Your task to perform on an android device: change notifications settings Image 0: 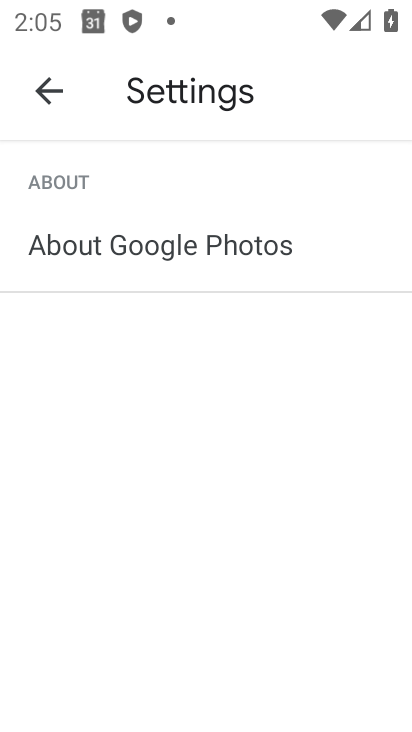
Step 0: press home button
Your task to perform on an android device: change notifications settings Image 1: 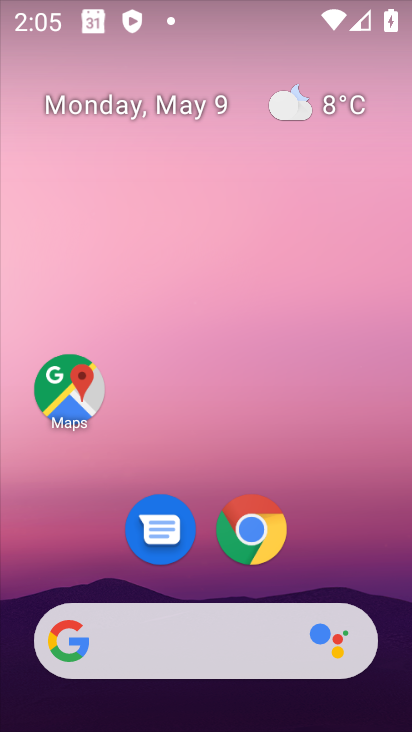
Step 1: drag from (210, 723) to (213, 86)
Your task to perform on an android device: change notifications settings Image 2: 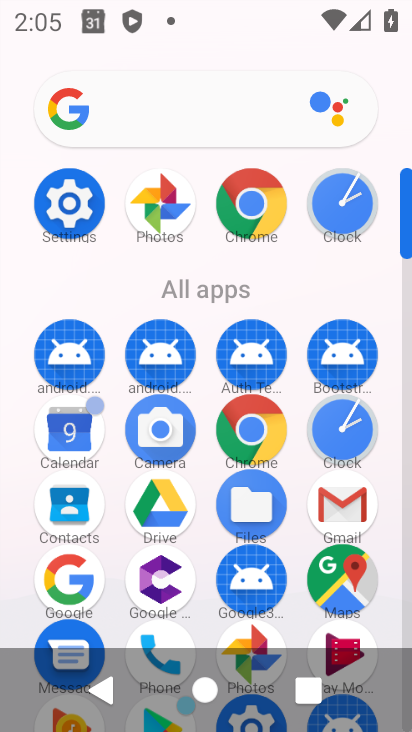
Step 2: click (60, 218)
Your task to perform on an android device: change notifications settings Image 3: 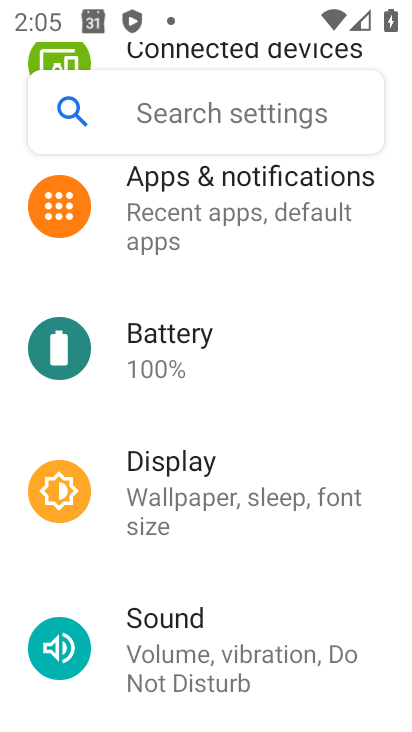
Step 3: click (263, 191)
Your task to perform on an android device: change notifications settings Image 4: 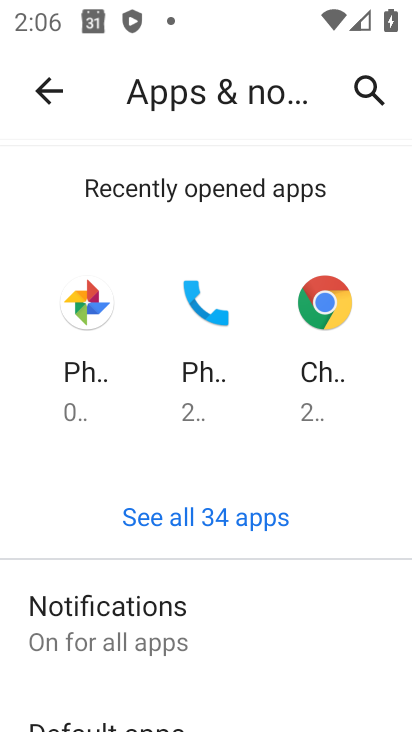
Step 4: click (128, 633)
Your task to perform on an android device: change notifications settings Image 5: 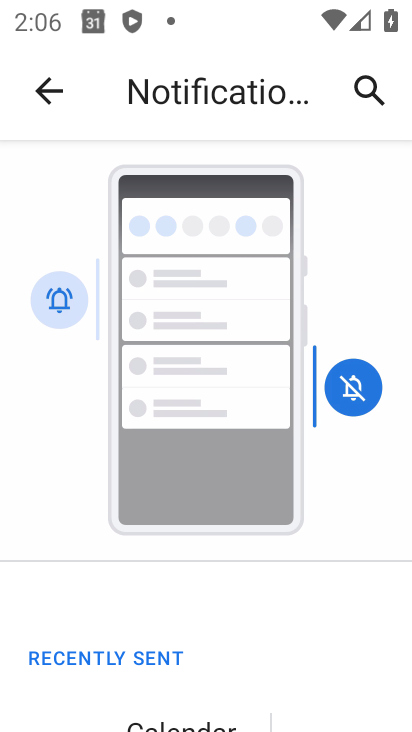
Step 5: drag from (283, 625) to (229, 172)
Your task to perform on an android device: change notifications settings Image 6: 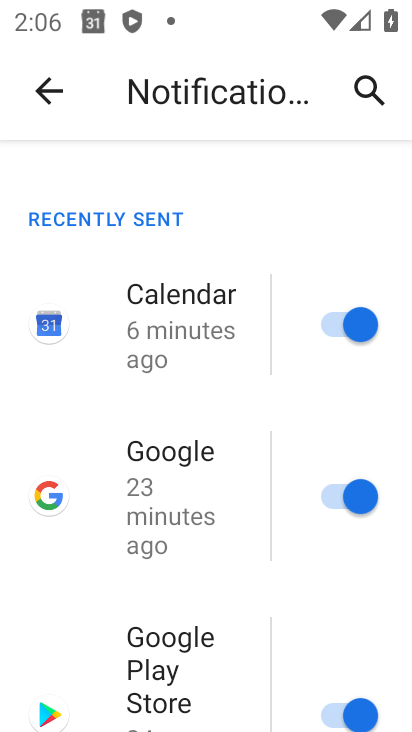
Step 6: click (358, 326)
Your task to perform on an android device: change notifications settings Image 7: 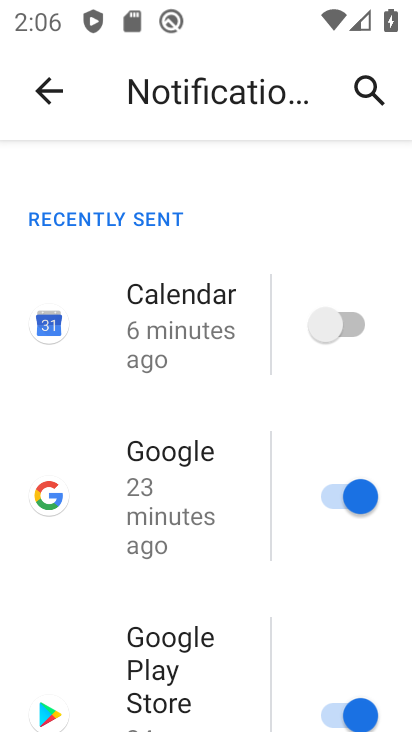
Step 7: task complete